Your task to perform on an android device: What's on my calendar tomorrow? Image 0: 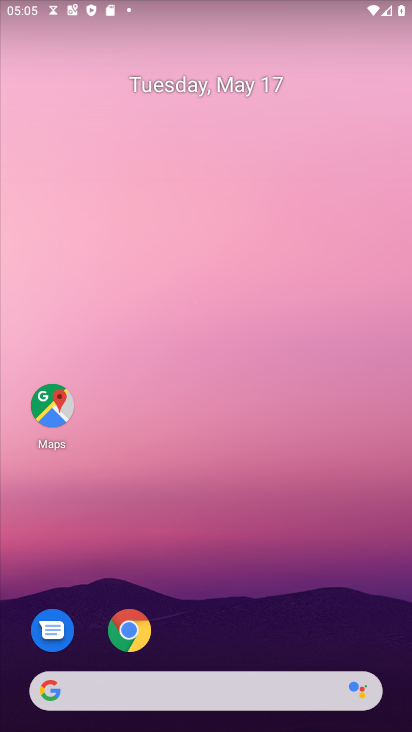
Step 0: drag from (213, 564) to (165, 134)
Your task to perform on an android device: What's on my calendar tomorrow? Image 1: 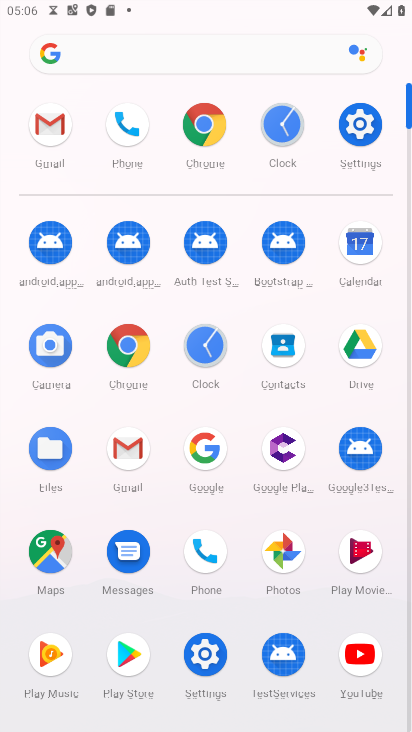
Step 1: click (360, 241)
Your task to perform on an android device: What's on my calendar tomorrow? Image 2: 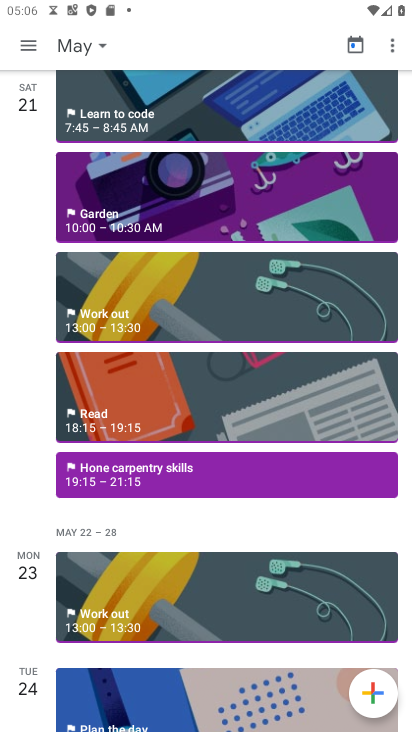
Step 2: task complete